Your task to perform on an android device: turn on location history Image 0: 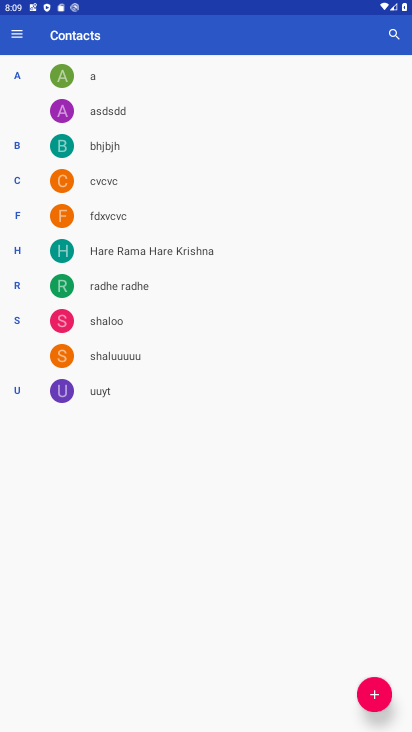
Step 0: press home button
Your task to perform on an android device: turn on location history Image 1: 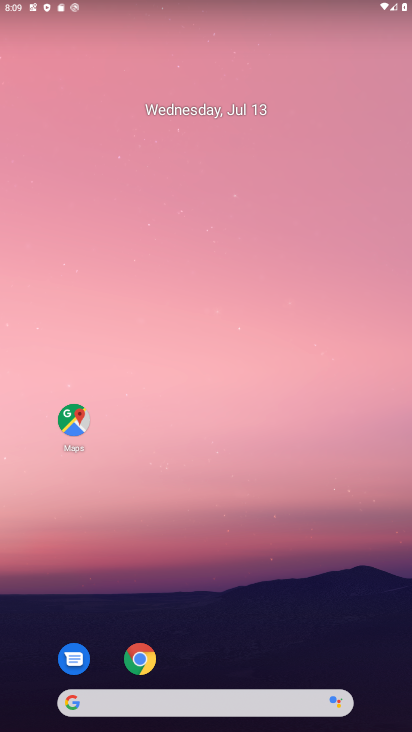
Step 1: drag from (194, 656) to (188, 207)
Your task to perform on an android device: turn on location history Image 2: 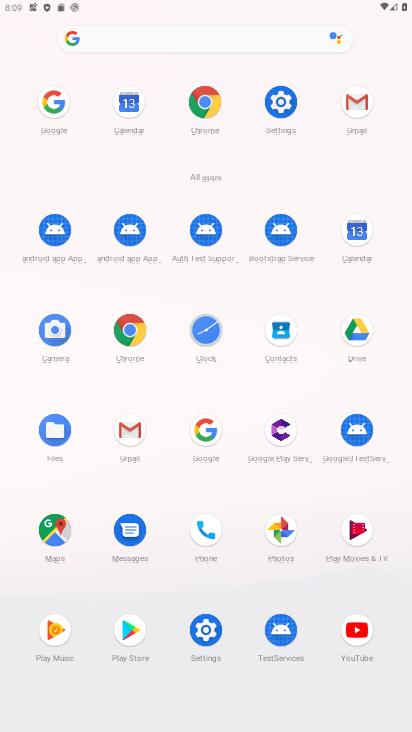
Step 2: click (269, 110)
Your task to perform on an android device: turn on location history Image 3: 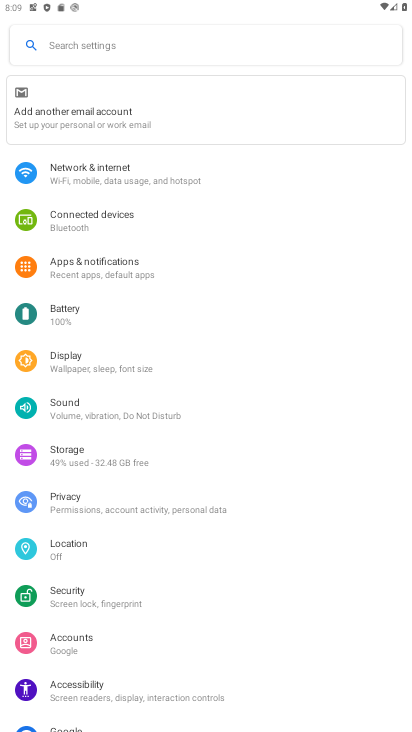
Step 3: click (100, 555)
Your task to perform on an android device: turn on location history Image 4: 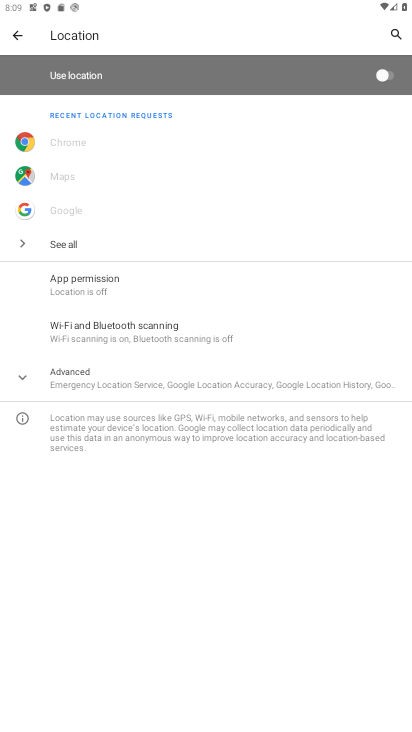
Step 4: click (115, 384)
Your task to perform on an android device: turn on location history Image 5: 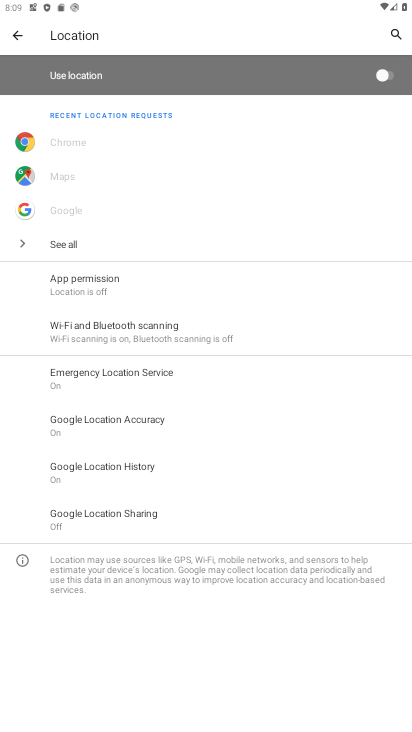
Step 5: click (151, 465)
Your task to perform on an android device: turn on location history Image 6: 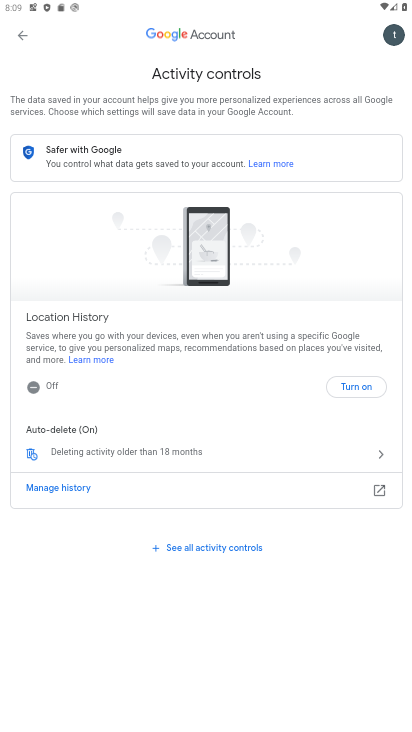
Step 6: click (325, 374)
Your task to perform on an android device: turn on location history Image 7: 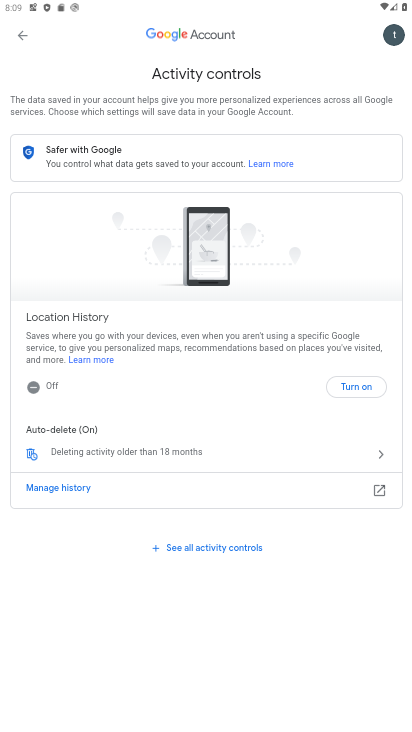
Step 7: click (363, 388)
Your task to perform on an android device: turn on location history Image 8: 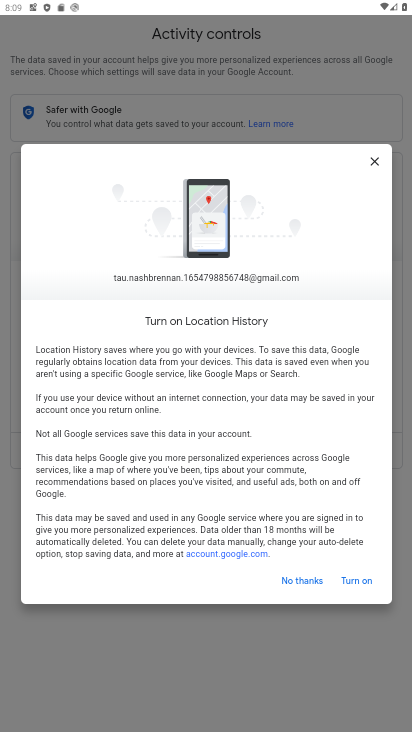
Step 8: click (359, 586)
Your task to perform on an android device: turn on location history Image 9: 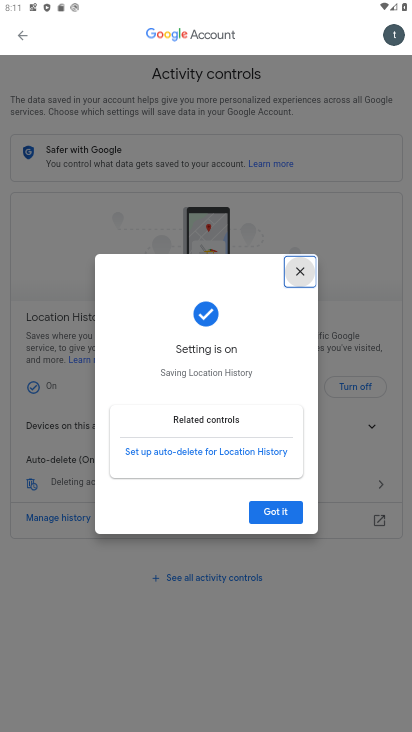
Step 9: task complete